Your task to perform on an android device: set the timer Image 0: 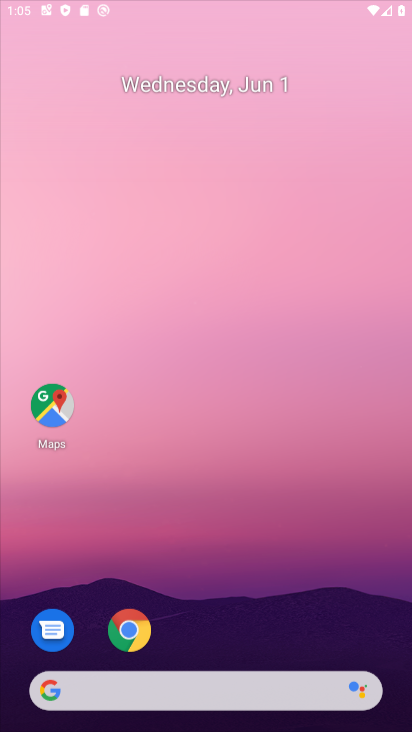
Step 0: press home button
Your task to perform on an android device: set the timer Image 1: 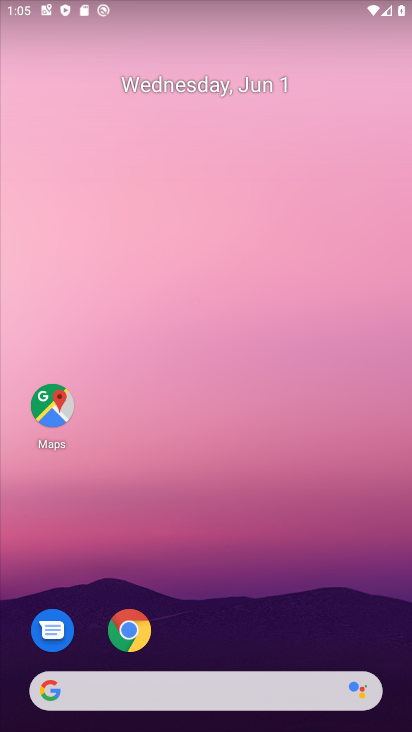
Step 1: drag from (274, 638) to (286, 144)
Your task to perform on an android device: set the timer Image 2: 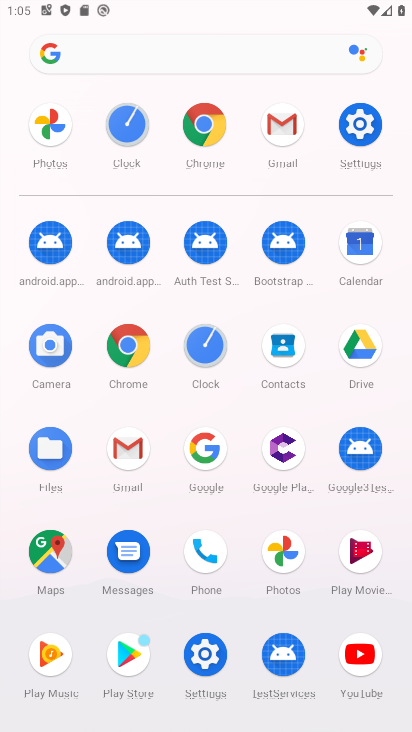
Step 2: click (126, 122)
Your task to perform on an android device: set the timer Image 3: 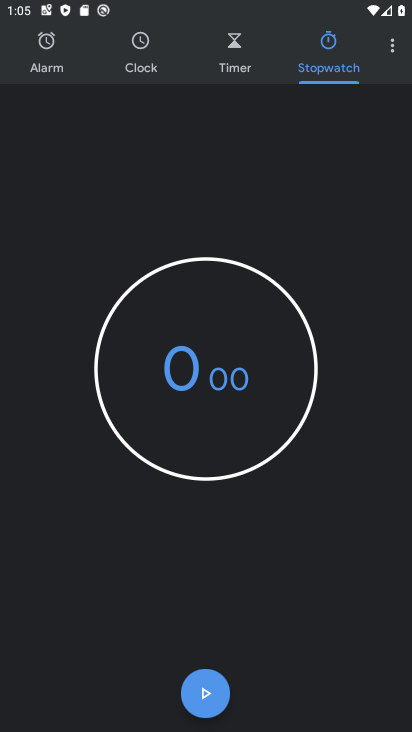
Step 3: click (239, 49)
Your task to perform on an android device: set the timer Image 4: 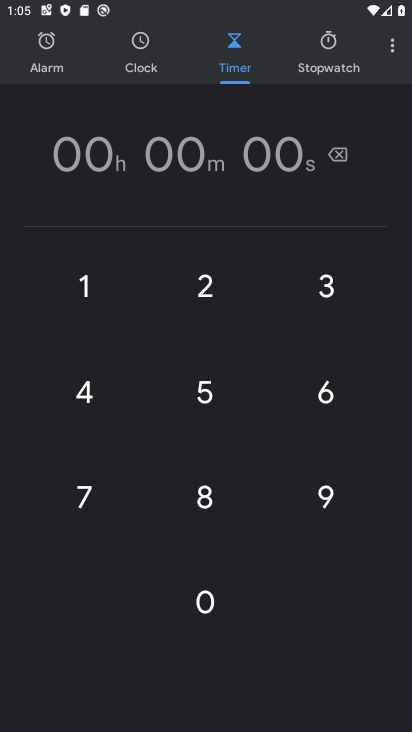
Step 4: click (79, 289)
Your task to perform on an android device: set the timer Image 5: 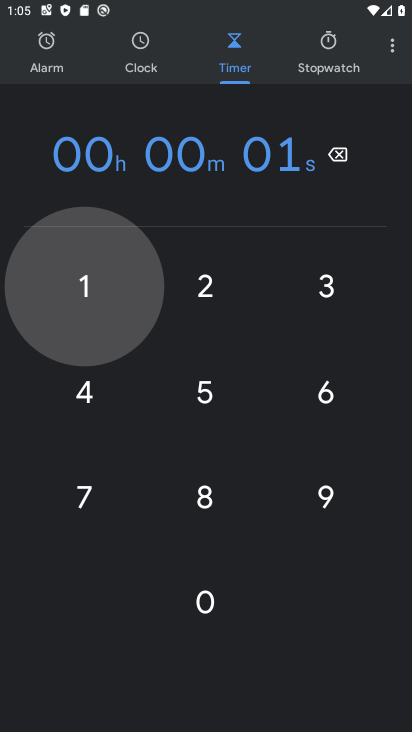
Step 5: click (215, 287)
Your task to perform on an android device: set the timer Image 6: 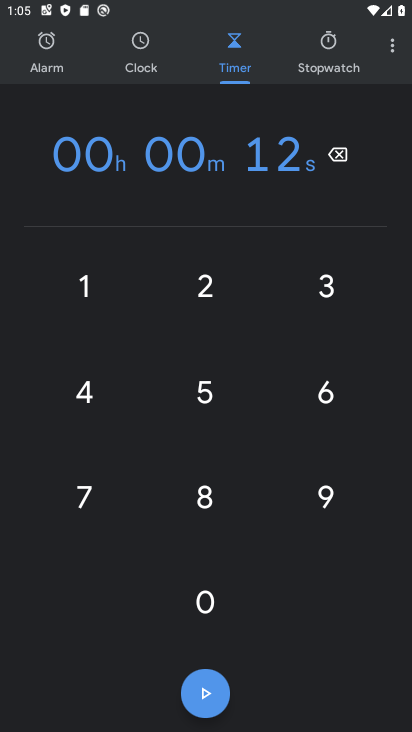
Step 6: click (89, 392)
Your task to perform on an android device: set the timer Image 7: 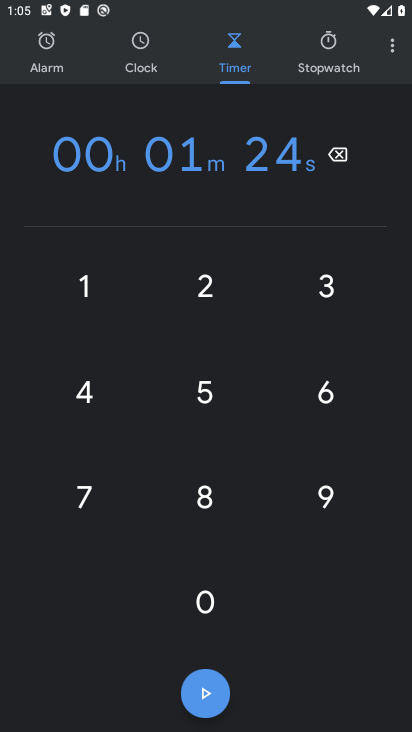
Step 7: click (202, 604)
Your task to perform on an android device: set the timer Image 8: 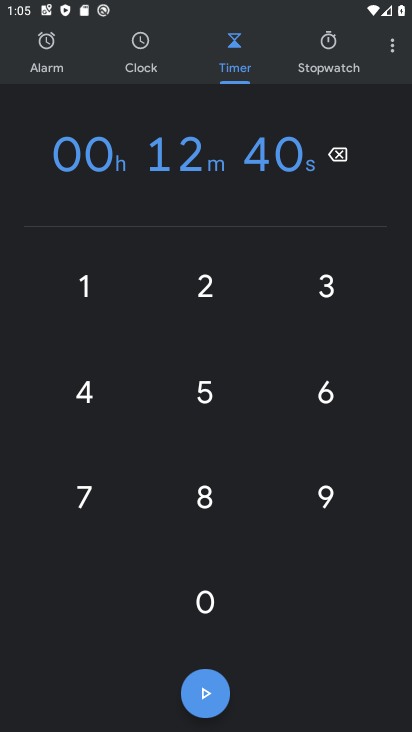
Step 8: click (200, 393)
Your task to perform on an android device: set the timer Image 9: 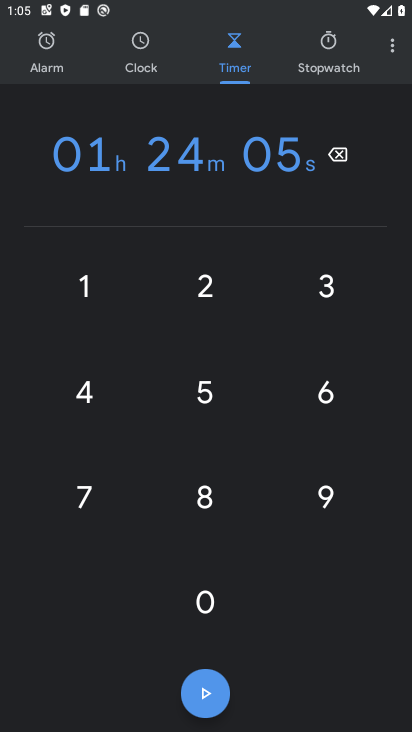
Step 9: click (200, 392)
Your task to perform on an android device: set the timer Image 10: 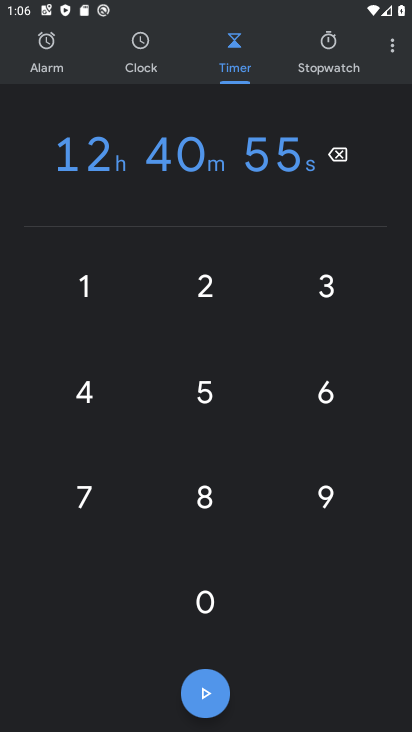
Step 10: task complete